Your task to perform on an android device: star an email in the gmail app Image 0: 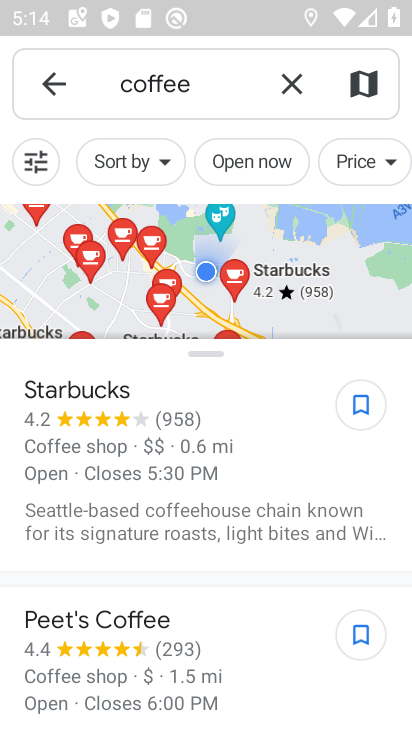
Step 0: press home button
Your task to perform on an android device: star an email in the gmail app Image 1: 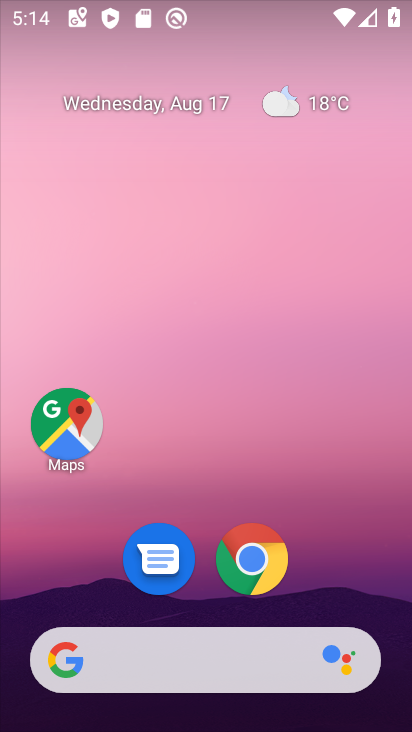
Step 1: drag from (178, 623) to (205, 95)
Your task to perform on an android device: star an email in the gmail app Image 2: 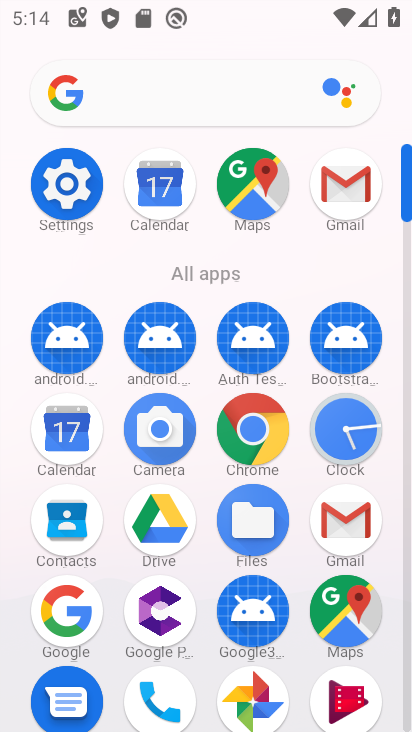
Step 2: click (330, 201)
Your task to perform on an android device: star an email in the gmail app Image 3: 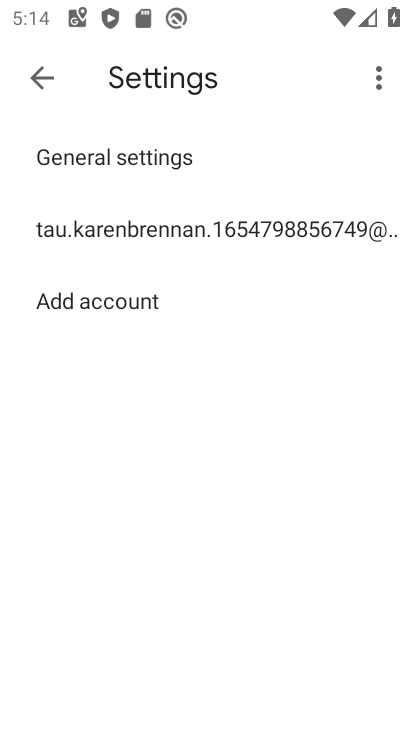
Step 3: click (35, 90)
Your task to perform on an android device: star an email in the gmail app Image 4: 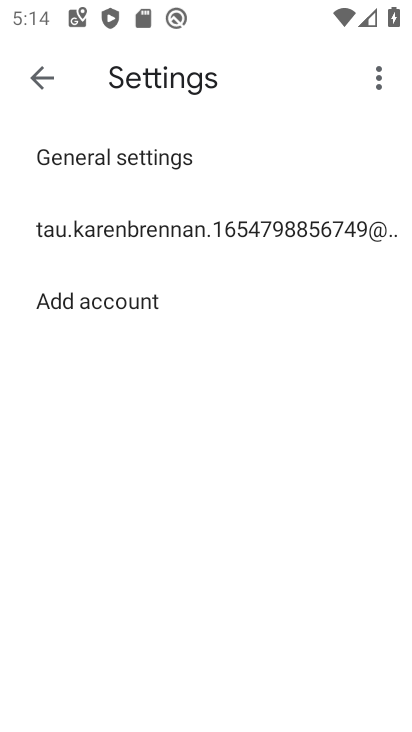
Step 4: click (35, 90)
Your task to perform on an android device: star an email in the gmail app Image 5: 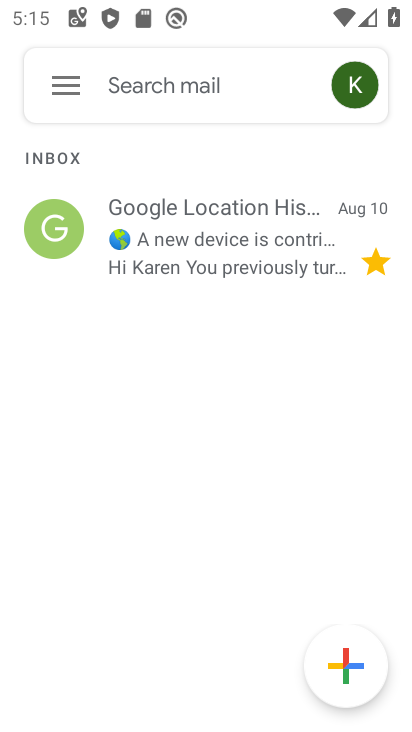
Step 5: click (66, 88)
Your task to perform on an android device: star an email in the gmail app Image 6: 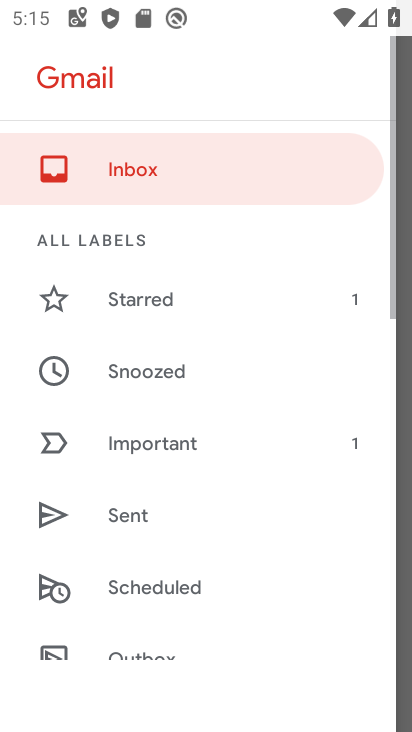
Step 6: drag from (202, 543) to (242, 50)
Your task to perform on an android device: star an email in the gmail app Image 7: 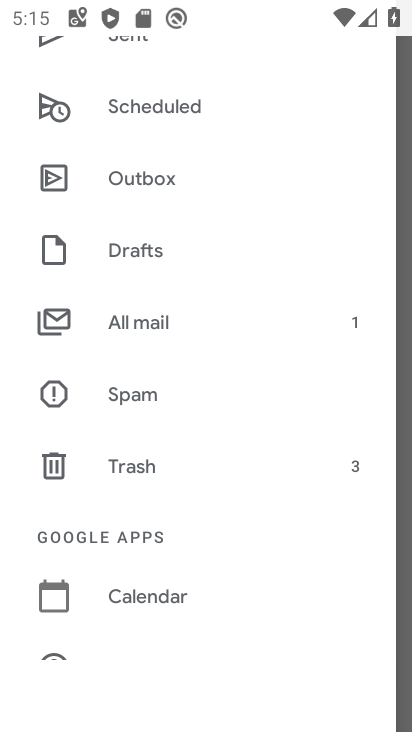
Step 7: click (149, 350)
Your task to perform on an android device: star an email in the gmail app Image 8: 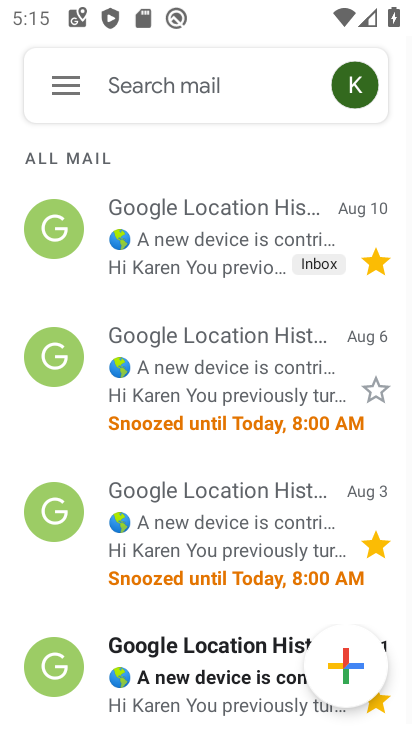
Step 8: click (366, 393)
Your task to perform on an android device: star an email in the gmail app Image 9: 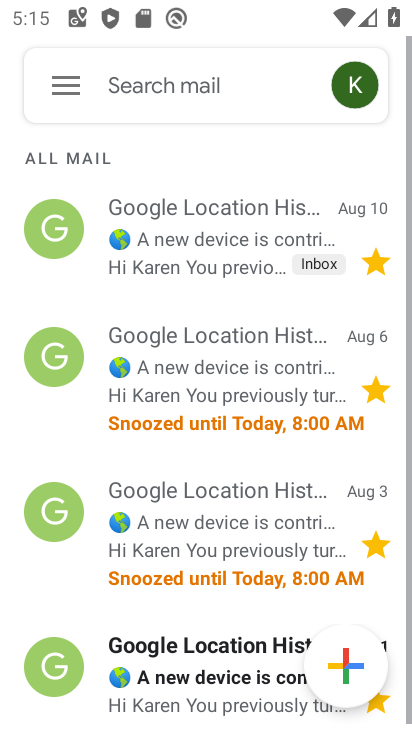
Step 9: task complete